Your task to perform on an android device: turn notification dots on Image 0: 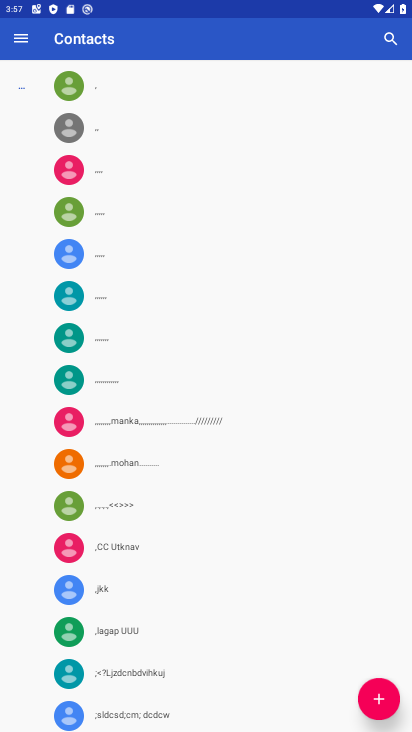
Step 0: press home button
Your task to perform on an android device: turn notification dots on Image 1: 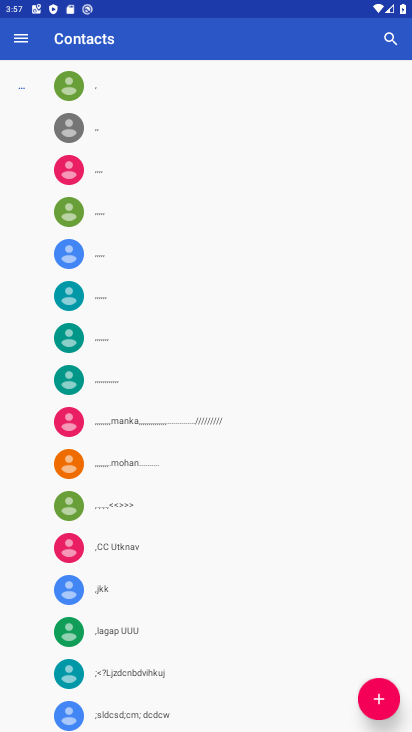
Step 1: press home button
Your task to perform on an android device: turn notification dots on Image 2: 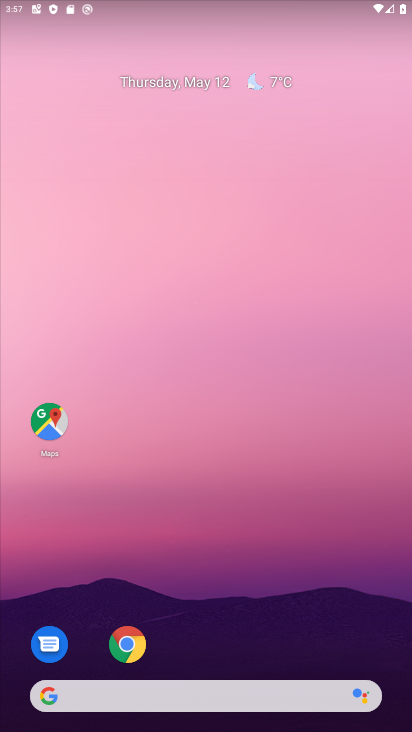
Step 2: drag from (216, 639) to (211, 141)
Your task to perform on an android device: turn notification dots on Image 3: 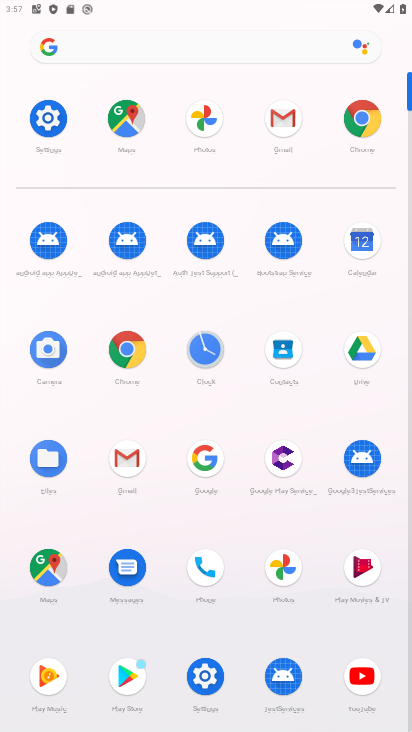
Step 3: click (48, 112)
Your task to perform on an android device: turn notification dots on Image 4: 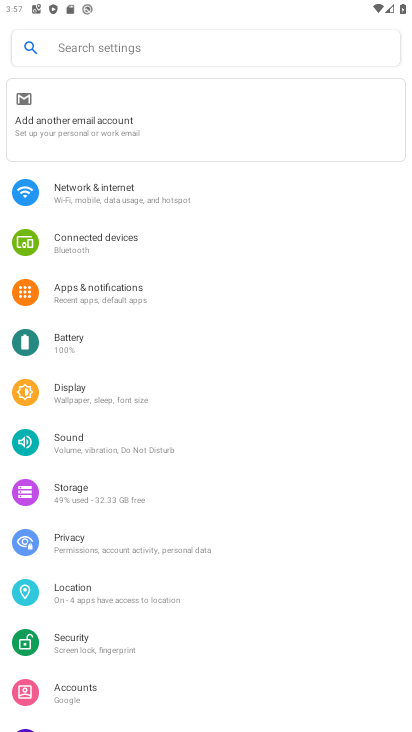
Step 4: click (126, 298)
Your task to perform on an android device: turn notification dots on Image 5: 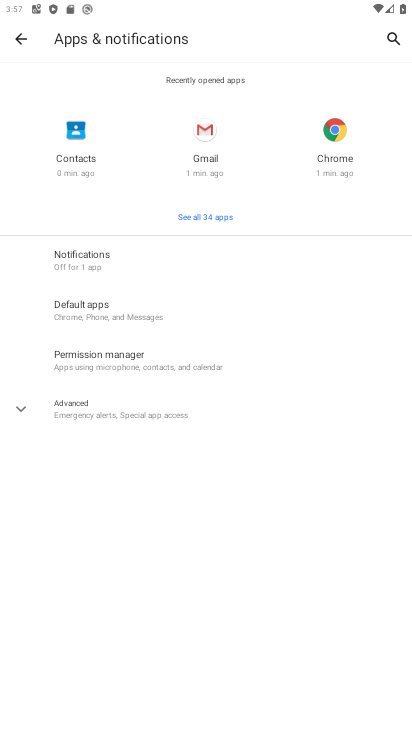
Step 5: click (107, 405)
Your task to perform on an android device: turn notification dots on Image 6: 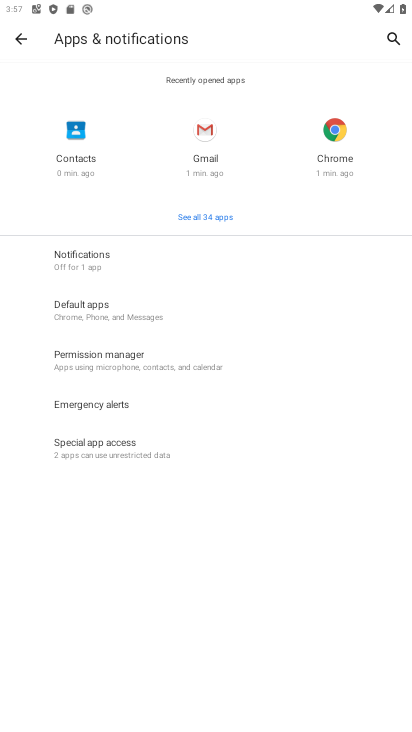
Step 6: click (125, 251)
Your task to perform on an android device: turn notification dots on Image 7: 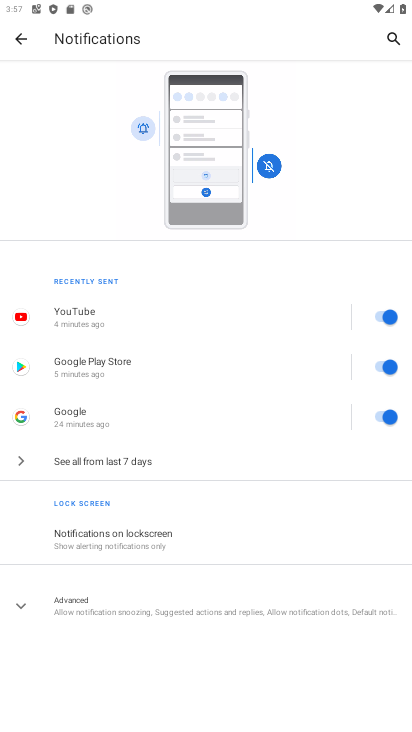
Step 7: click (34, 603)
Your task to perform on an android device: turn notification dots on Image 8: 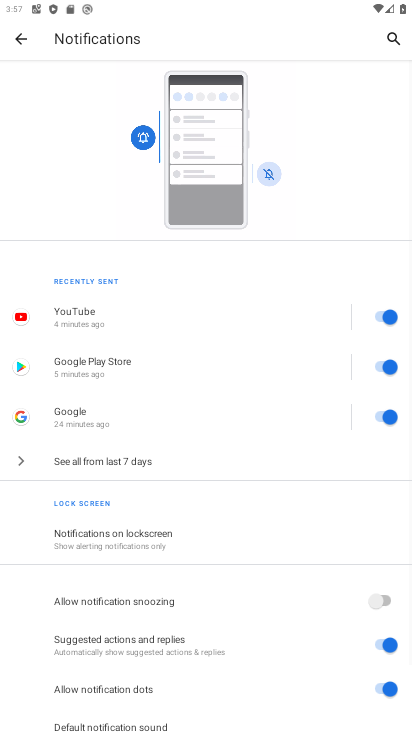
Step 8: task complete